Your task to perform on an android device: turn off wifi Image 0: 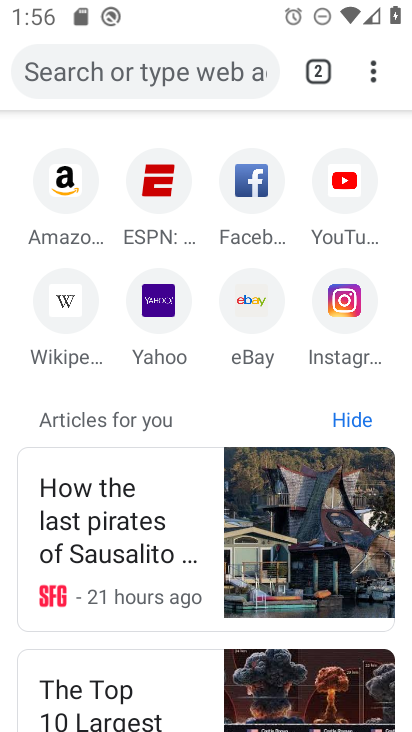
Step 0: press home button
Your task to perform on an android device: turn off wifi Image 1: 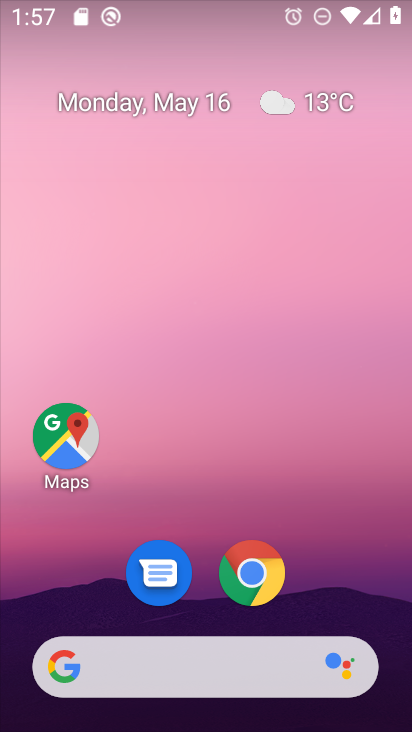
Step 1: drag from (183, 676) to (167, 184)
Your task to perform on an android device: turn off wifi Image 2: 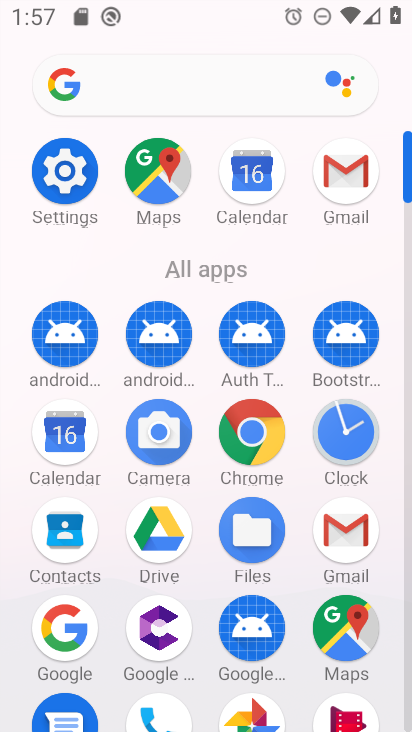
Step 2: click (76, 163)
Your task to perform on an android device: turn off wifi Image 3: 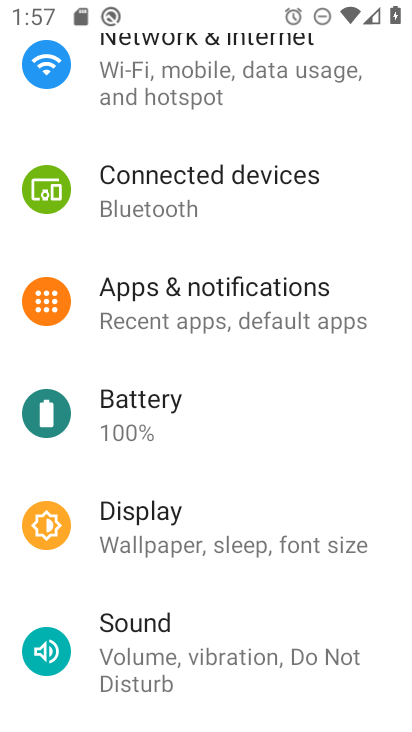
Step 3: drag from (184, 101) to (162, 466)
Your task to perform on an android device: turn off wifi Image 4: 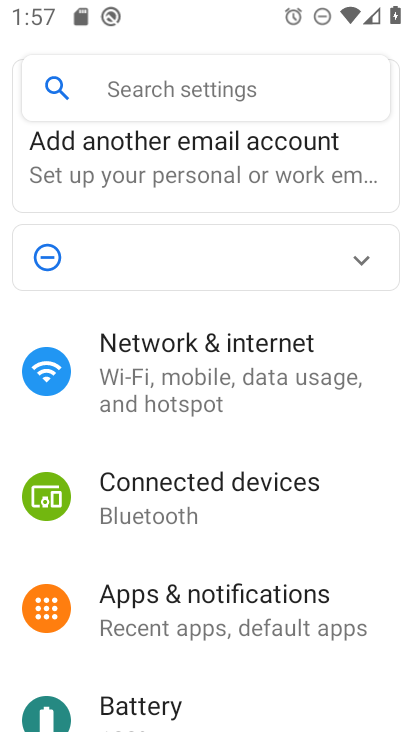
Step 4: click (155, 371)
Your task to perform on an android device: turn off wifi Image 5: 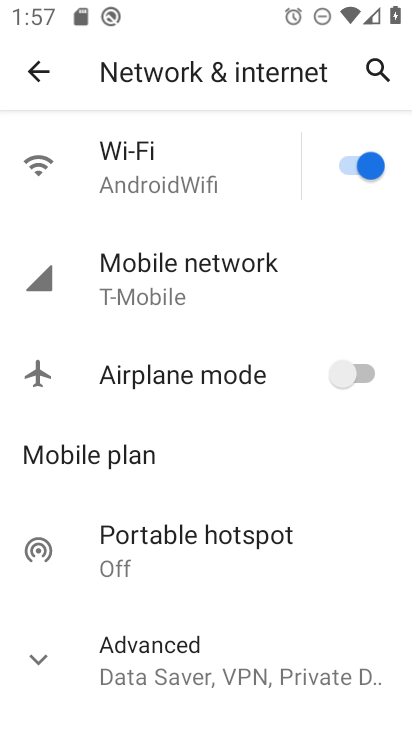
Step 5: click (340, 166)
Your task to perform on an android device: turn off wifi Image 6: 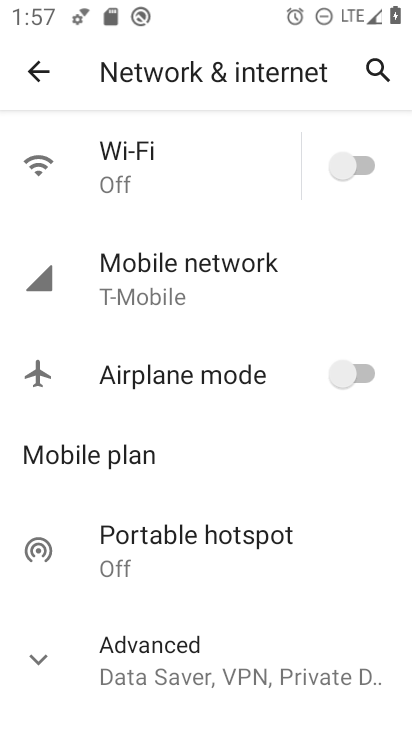
Step 6: task complete